Your task to perform on an android device: turn off location history Image 0: 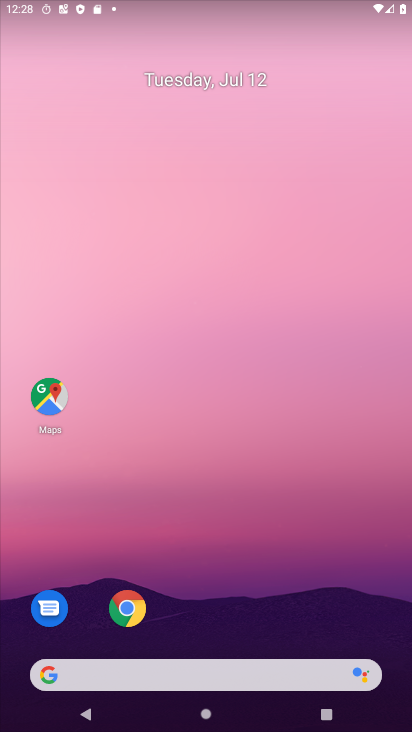
Step 0: click (271, 179)
Your task to perform on an android device: turn off location history Image 1: 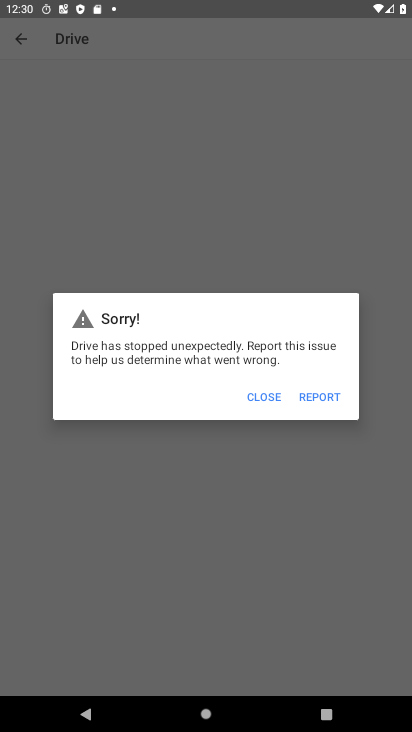
Step 1: click (228, 397)
Your task to perform on an android device: turn off location history Image 2: 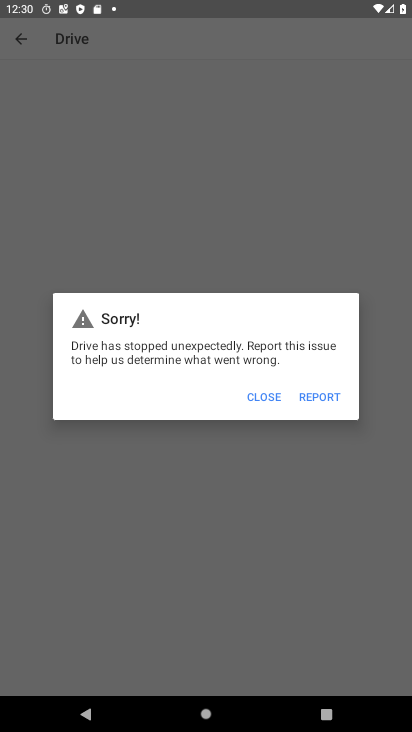
Step 2: click (265, 387)
Your task to perform on an android device: turn off location history Image 3: 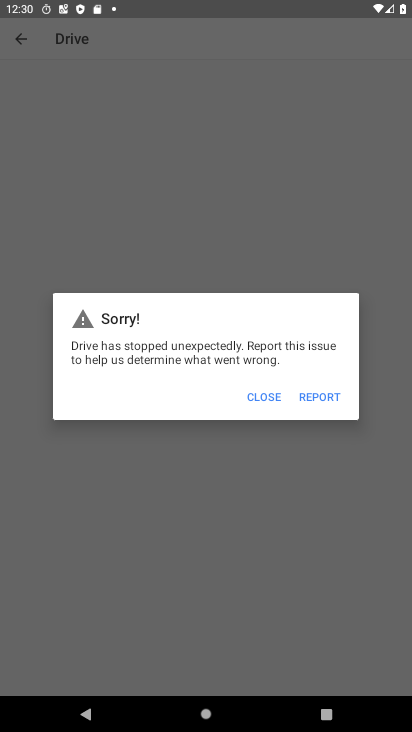
Step 3: click (265, 387)
Your task to perform on an android device: turn off location history Image 4: 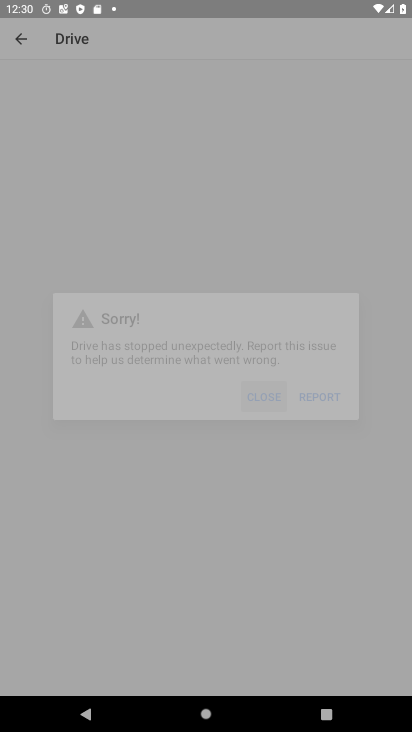
Step 4: click (268, 387)
Your task to perform on an android device: turn off location history Image 5: 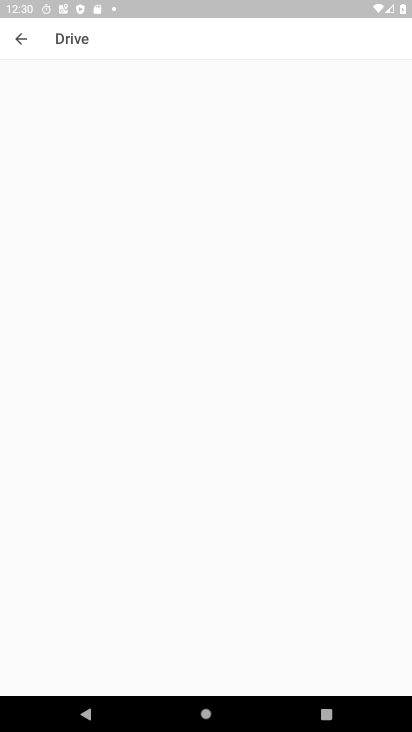
Step 5: click (269, 387)
Your task to perform on an android device: turn off location history Image 6: 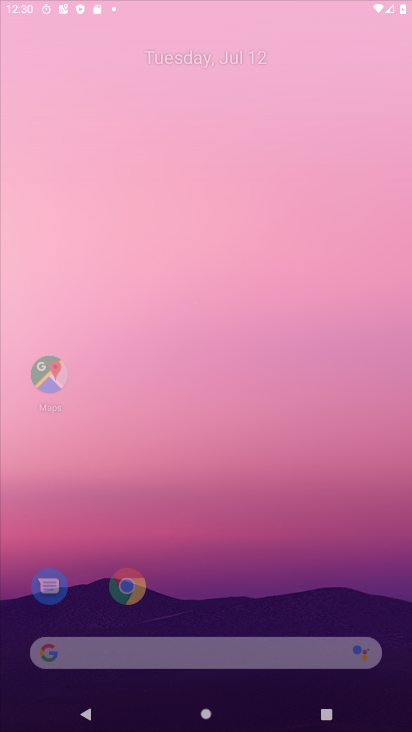
Step 6: click (269, 389)
Your task to perform on an android device: turn off location history Image 7: 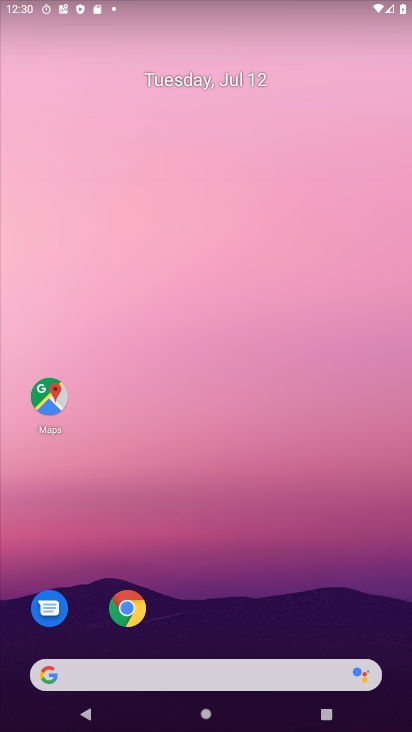
Step 7: drag from (177, 620) to (142, 56)
Your task to perform on an android device: turn off location history Image 8: 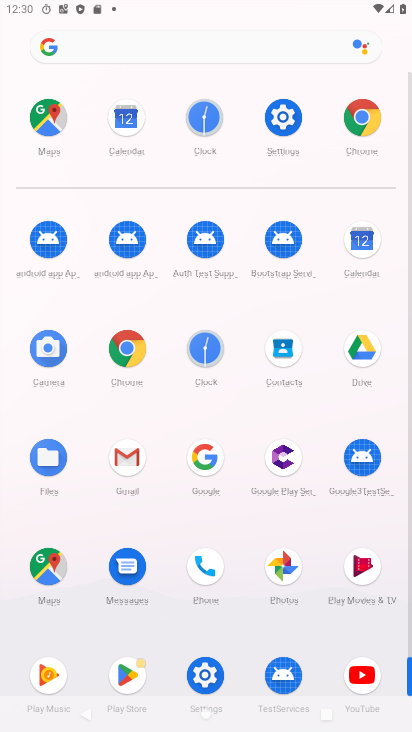
Step 8: click (290, 128)
Your task to perform on an android device: turn off location history Image 9: 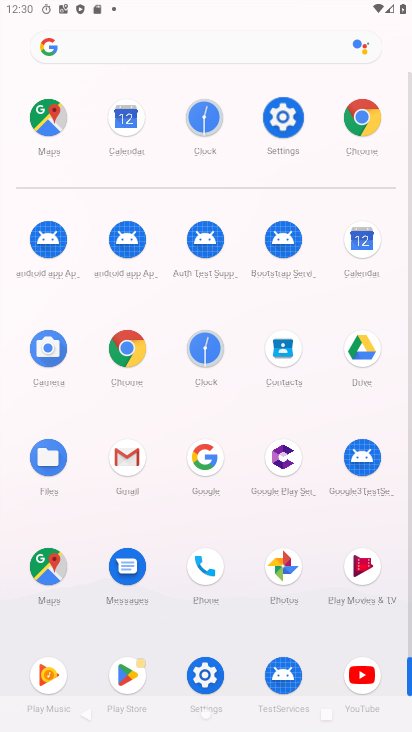
Step 9: click (289, 128)
Your task to perform on an android device: turn off location history Image 10: 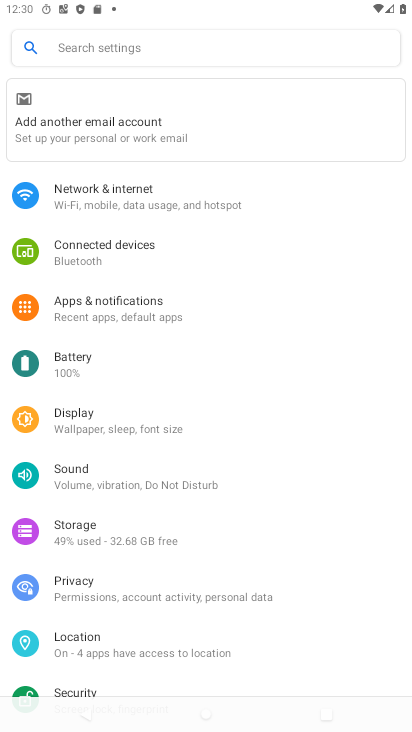
Step 10: click (98, 645)
Your task to perform on an android device: turn off location history Image 11: 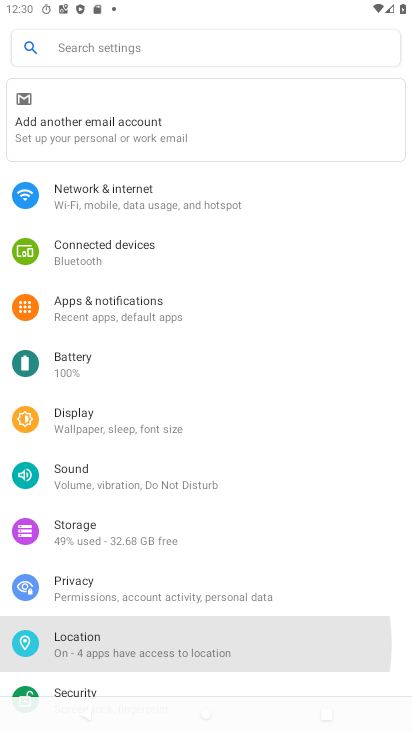
Step 11: click (101, 642)
Your task to perform on an android device: turn off location history Image 12: 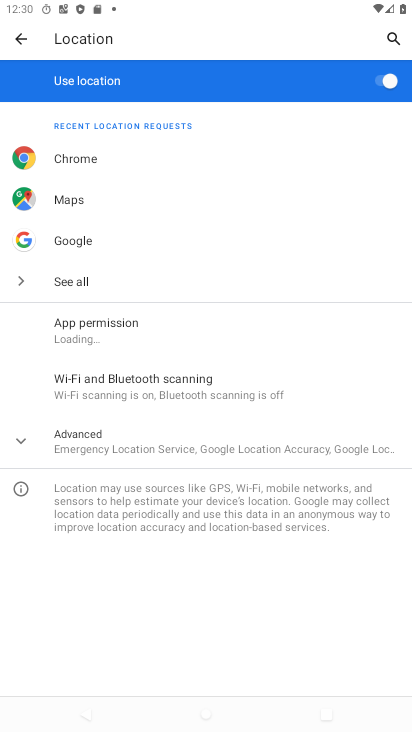
Step 12: click (84, 431)
Your task to perform on an android device: turn off location history Image 13: 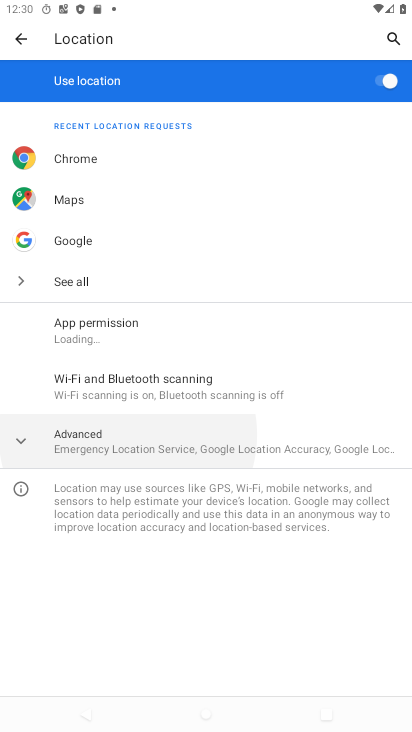
Step 13: click (84, 431)
Your task to perform on an android device: turn off location history Image 14: 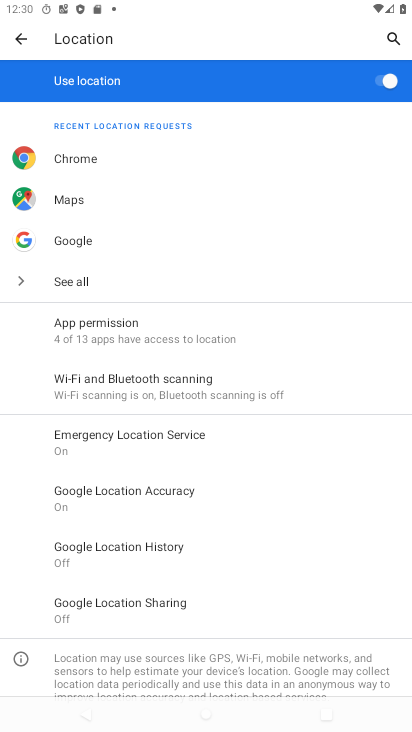
Step 14: click (126, 537)
Your task to perform on an android device: turn off location history Image 15: 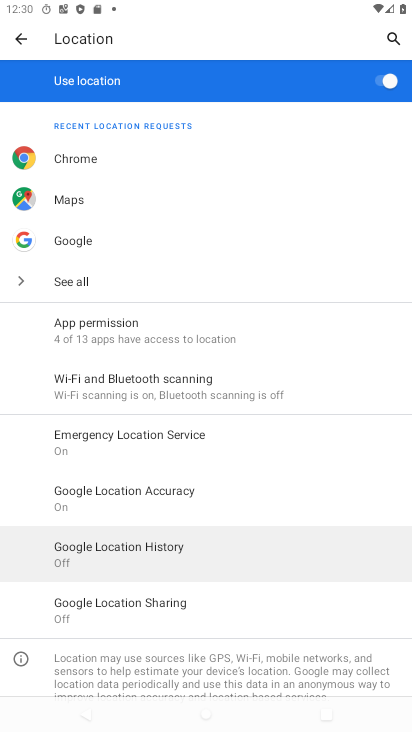
Step 15: click (126, 537)
Your task to perform on an android device: turn off location history Image 16: 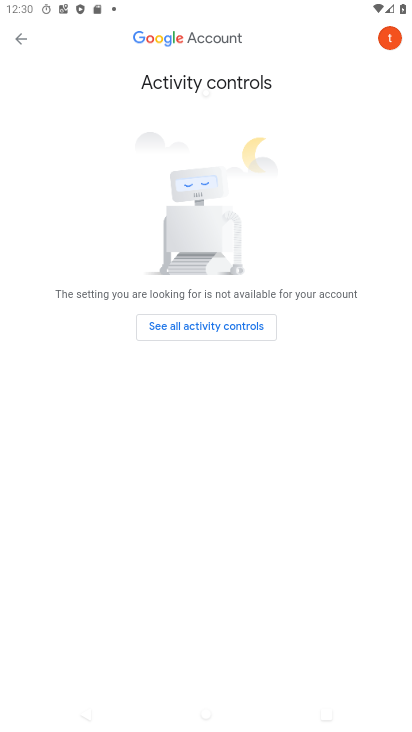
Step 16: click (16, 31)
Your task to perform on an android device: turn off location history Image 17: 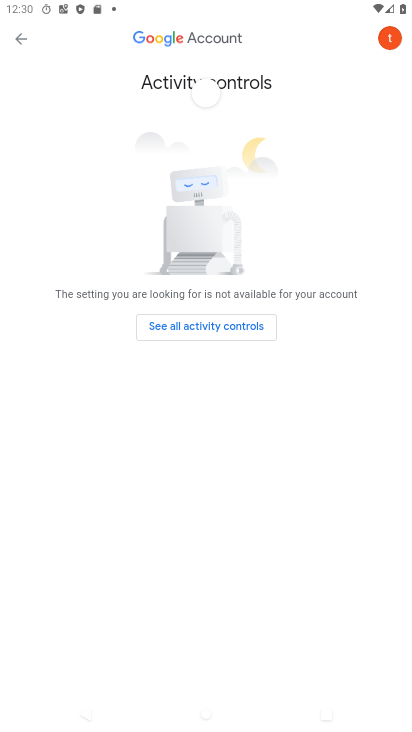
Step 17: click (17, 32)
Your task to perform on an android device: turn off location history Image 18: 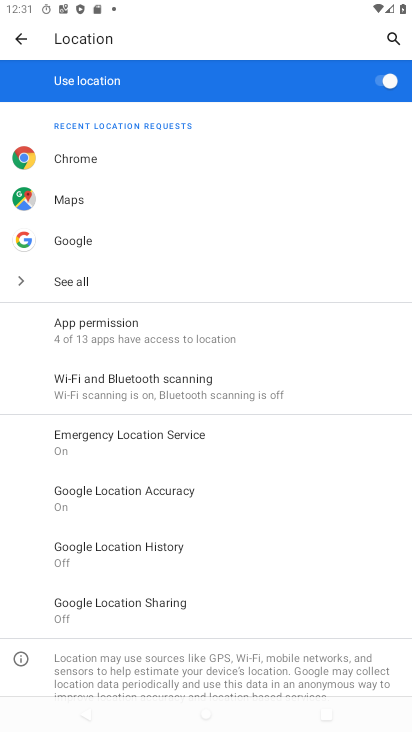
Step 18: task complete